Your task to perform on an android device: Go to Wikipedia Image 0: 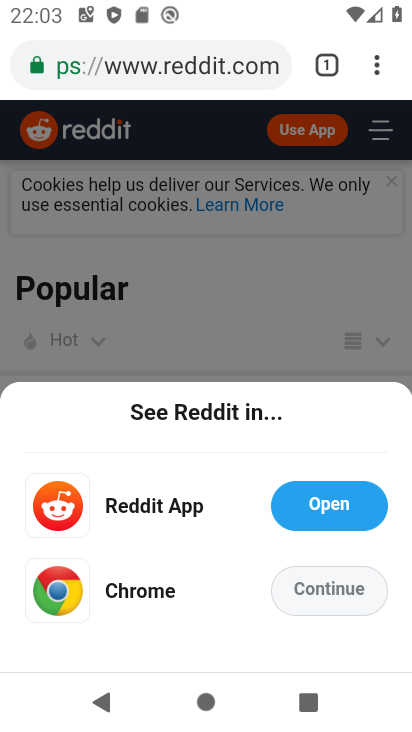
Step 0: press home button
Your task to perform on an android device: Go to Wikipedia Image 1: 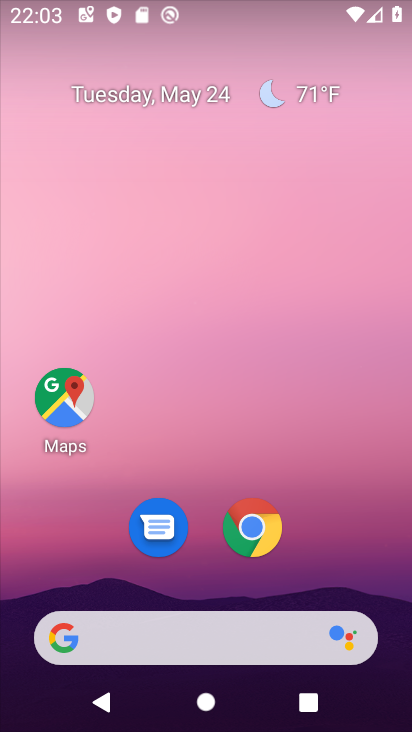
Step 1: click (241, 524)
Your task to perform on an android device: Go to Wikipedia Image 2: 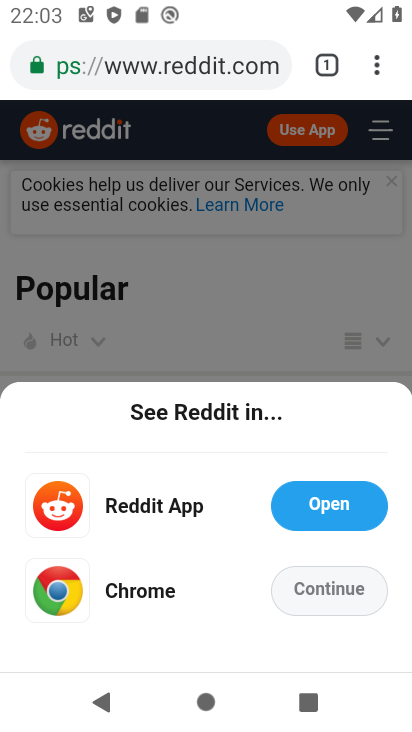
Step 2: click (187, 75)
Your task to perform on an android device: Go to Wikipedia Image 3: 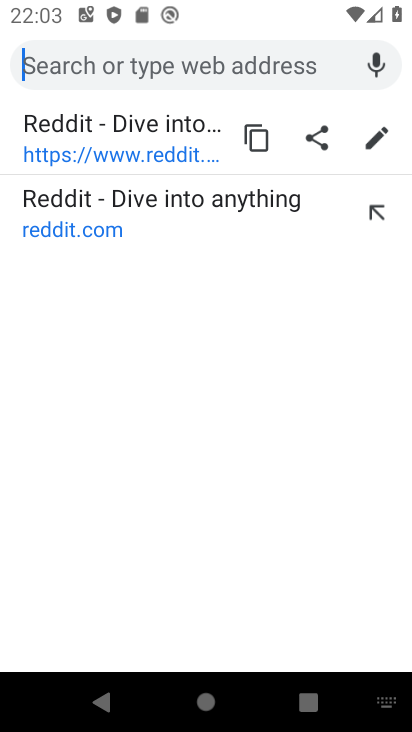
Step 3: type "wikipedia"
Your task to perform on an android device: Go to Wikipedia Image 4: 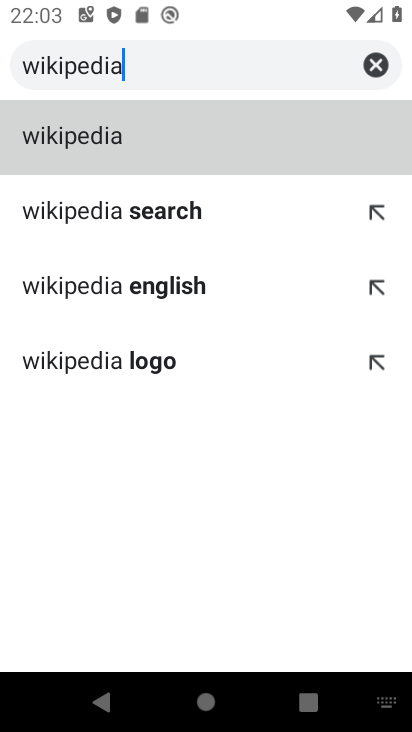
Step 4: click (63, 141)
Your task to perform on an android device: Go to Wikipedia Image 5: 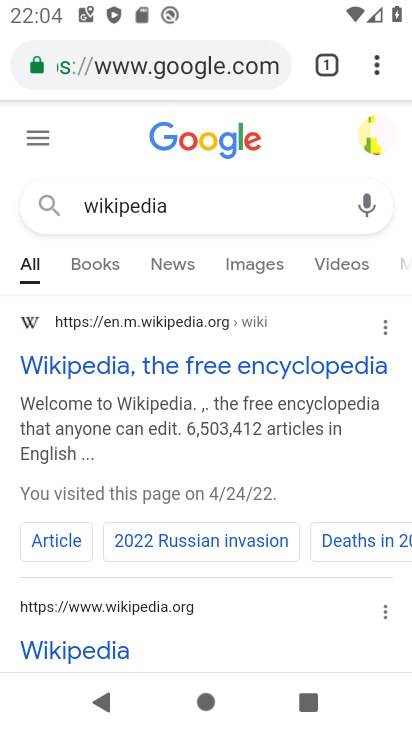
Step 5: click (124, 371)
Your task to perform on an android device: Go to Wikipedia Image 6: 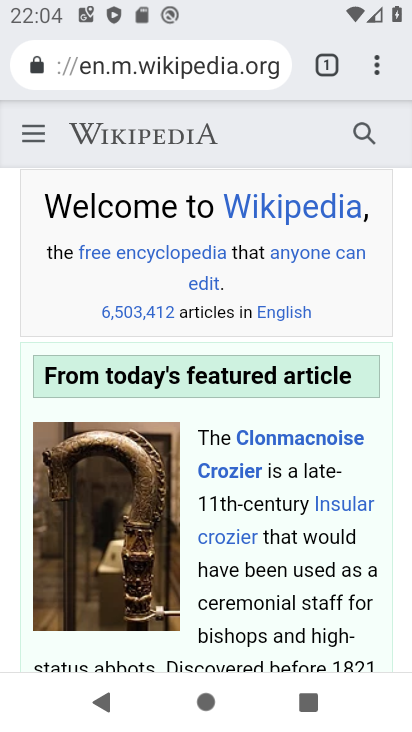
Step 6: task complete